Your task to perform on an android device: Open Yahoo.com Image 0: 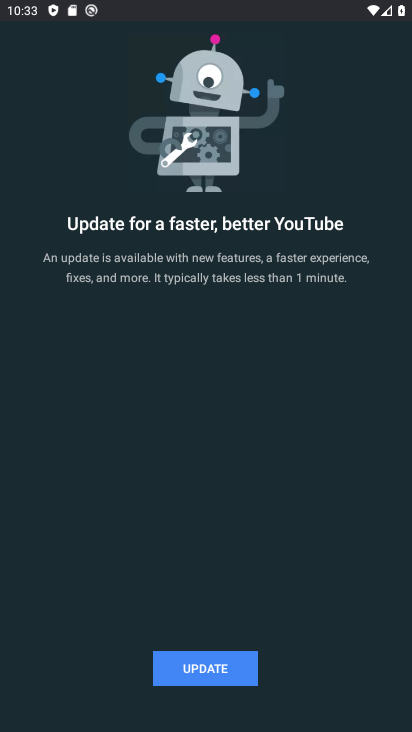
Step 0: press home button
Your task to perform on an android device: Open Yahoo.com Image 1: 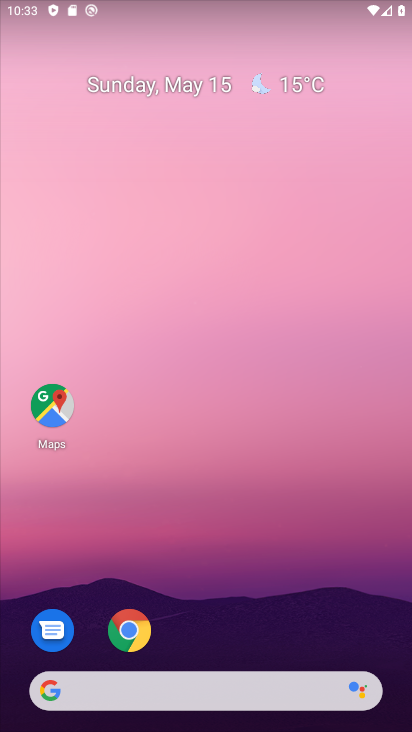
Step 1: click (133, 630)
Your task to perform on an android device: Open Yahoo.com Image 2: 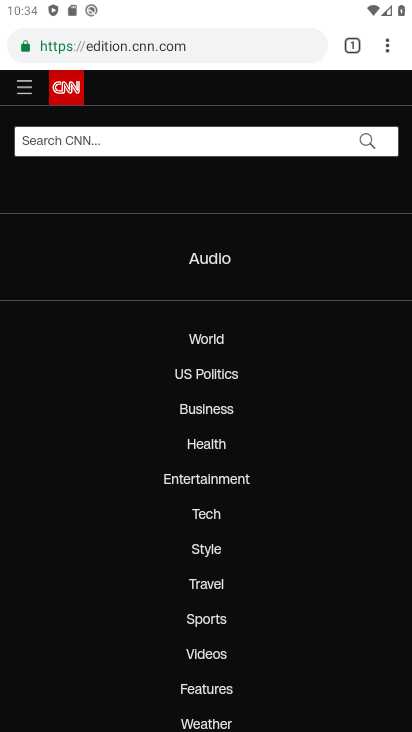
Step 2: click (389, 46)
Your task to perform on an android device: Open Yahoo.com Image 3: 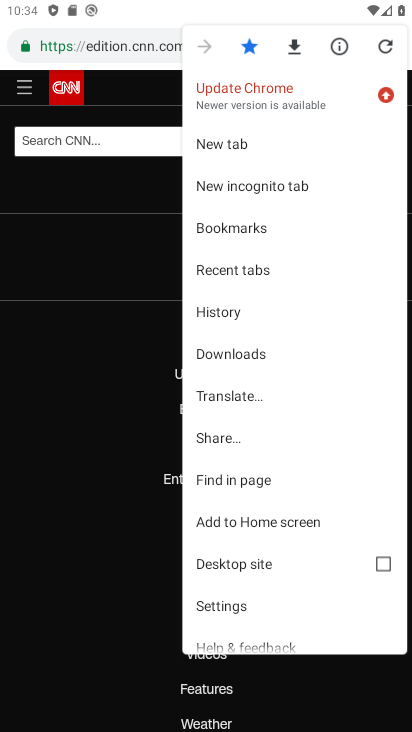
Step 3: click (227, 143)
Your task to perform on an android device: Open Yahoo.com Image 4: 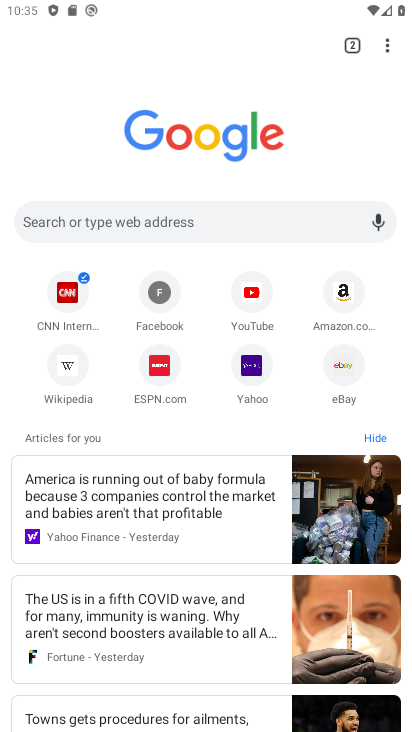
Step 4: click (248, 372)
Your task to perform on an android device: Open Yahoo.com Image 5: 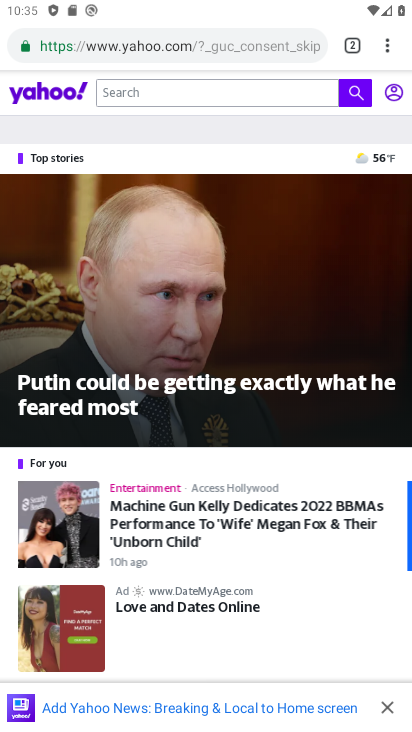
Step 5: task complete